Your task to perform on an android device: open the mobile data screen to see how much data has been used Image 0: 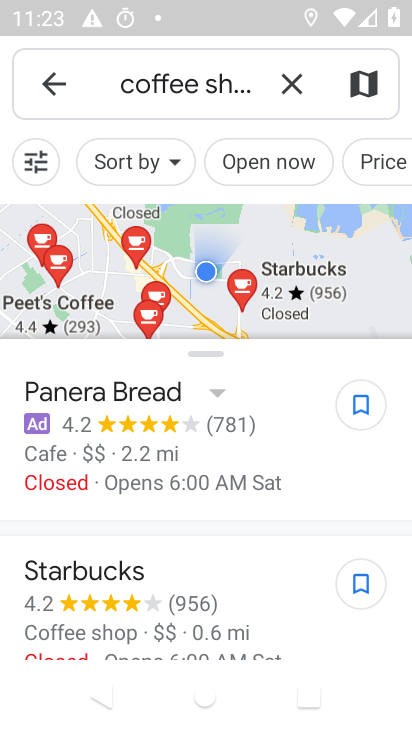
Step 0: press back button
Your task to perform on an android device: open the mobile data screen to see how much data has been used Image 1: 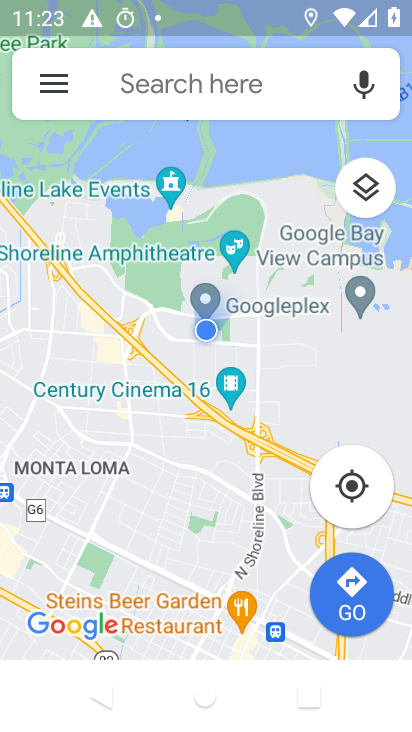
Step 1: press back button
Your task to perform on an android device: open the mobile data screen to see how much data has been used Image 2: 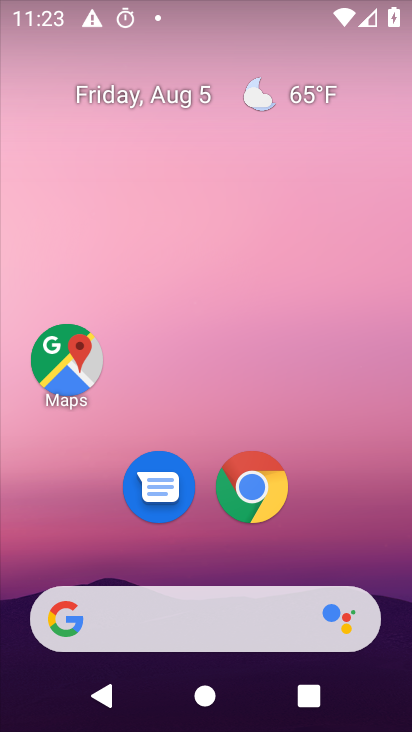
Step 2: drag from (181, 546) to (311, 36)
Your task to perform on an android device: open the mobile data screen to see how much data has been used Image 3: 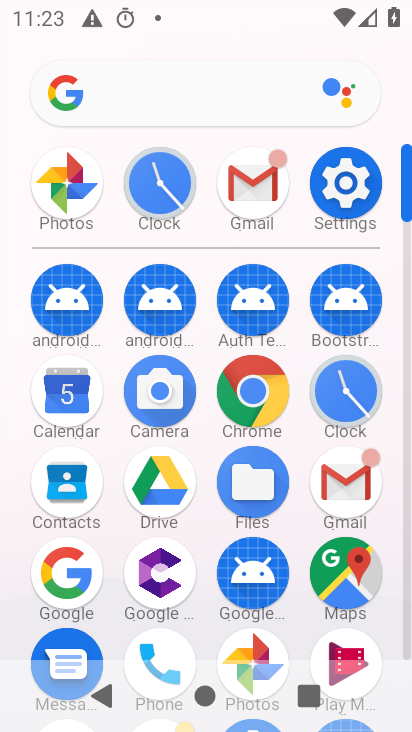
Step 3: click (350, 193)
Your task to perform on an android device: open the mobile data screen to see how much data has been used Image 4: 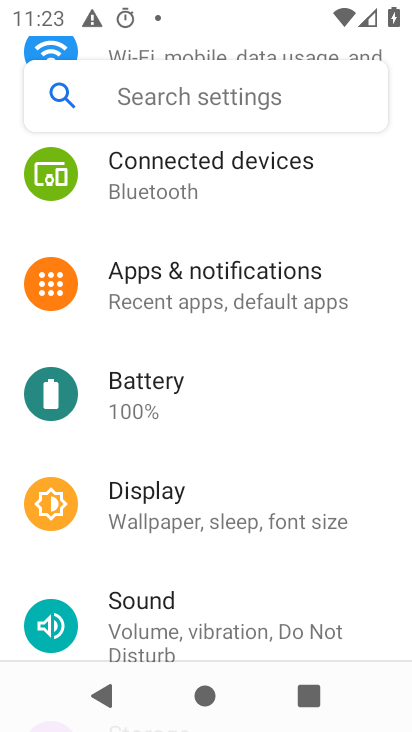
Step 4: drag from (283, 225) to (221, 728)
Your task to perform on an android device: open the mobile data screen to see how much data has been used Image 5: 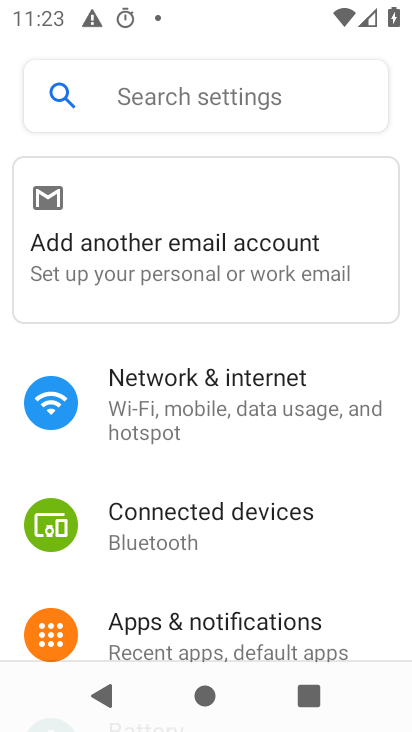
Step 5: click (237, 390)
Your task to perform on an android device: open the mobile data screen to see how much data has been used Image 6: 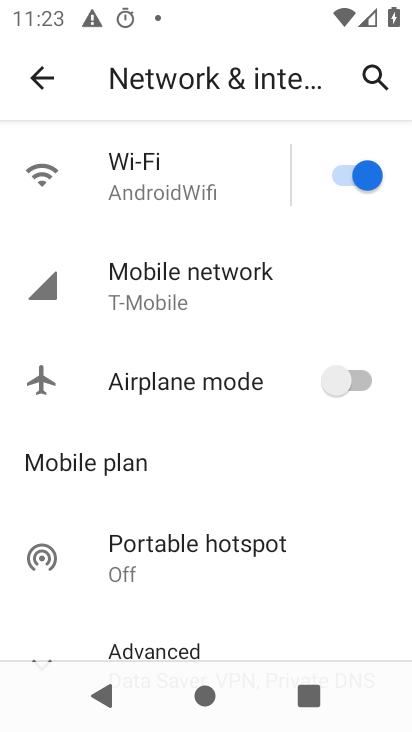
Step 6: click (183, 285)
Your task to perform on an android device: open the mobile data screen to see how much data has been used Image 7: 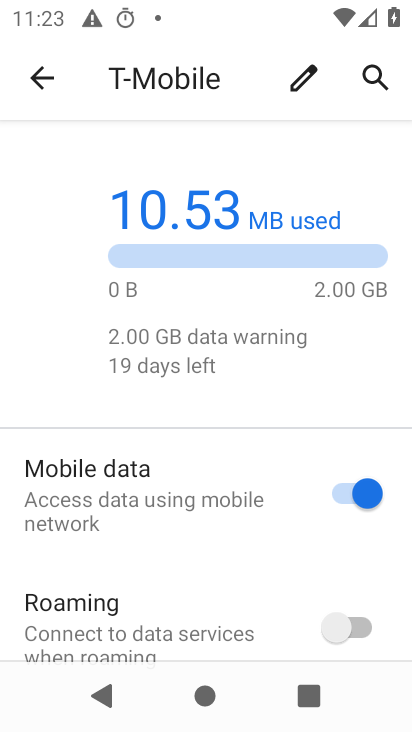
Step 7: drag from (142, 611) to (295, 76)
Your task to perform on an android device: open the mobile data screen to see how much data has been used Image 8: 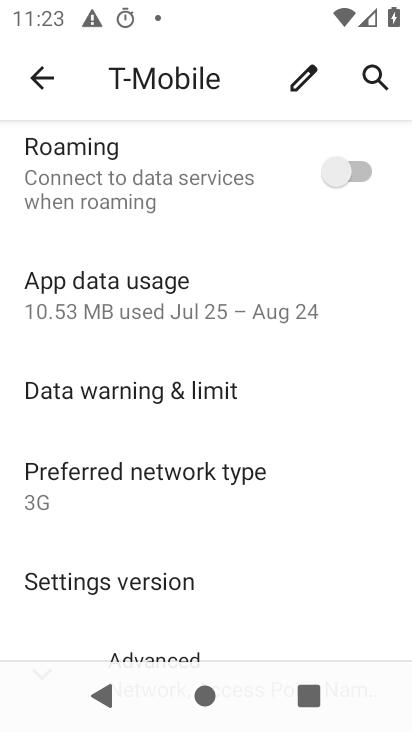
Step 8: click (150, 304)
Your task to perform on an android device: open the mobile data screen to see how much data has been used Image 9: 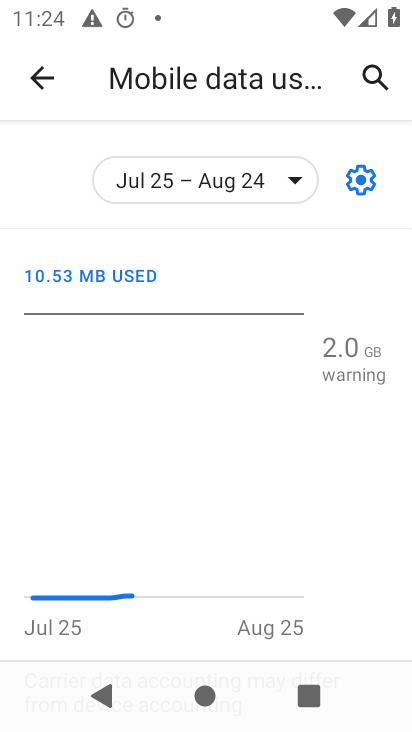
Step 9: task complete